Your task to perform on an android device: refresh tabs in the chrome app Image 0: 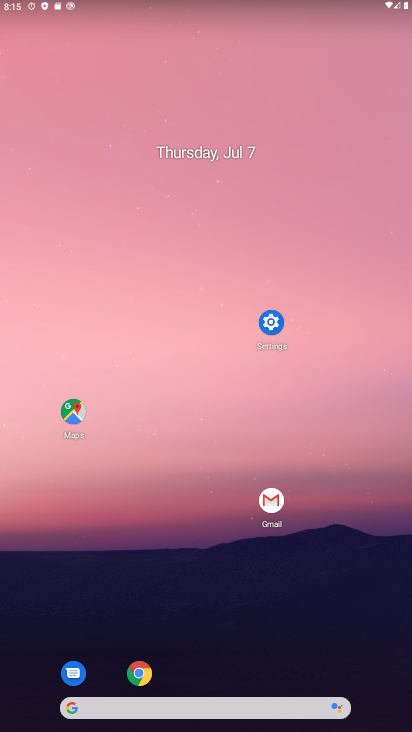
Step 0: click (138, 677)
Your task to perform on an android device: refresh tabs in the chrome app Image 1: 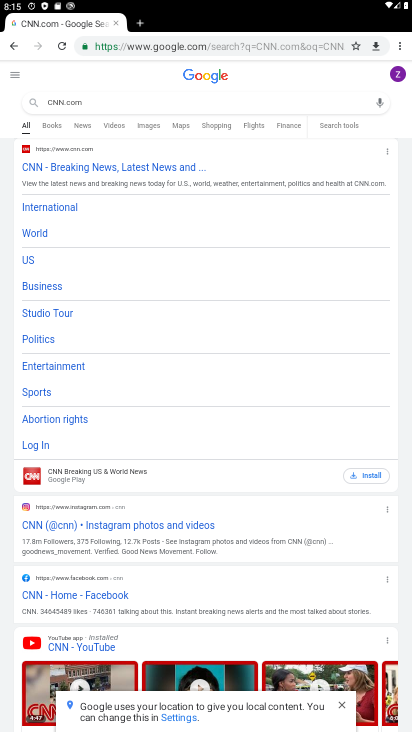
Step 1: click (401, 48)
Your task to perform on an android device: refresh tabs in the chrome app Image 2: 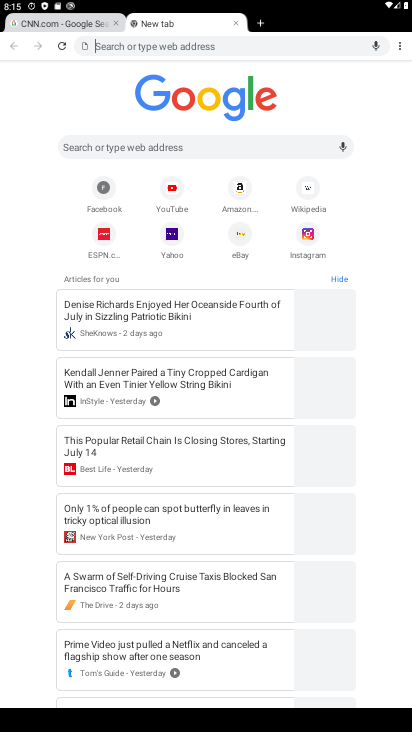
Step 2: click (401, 48)
Your task to perform on an android device: refresh tabs in the chrome app Image 3: 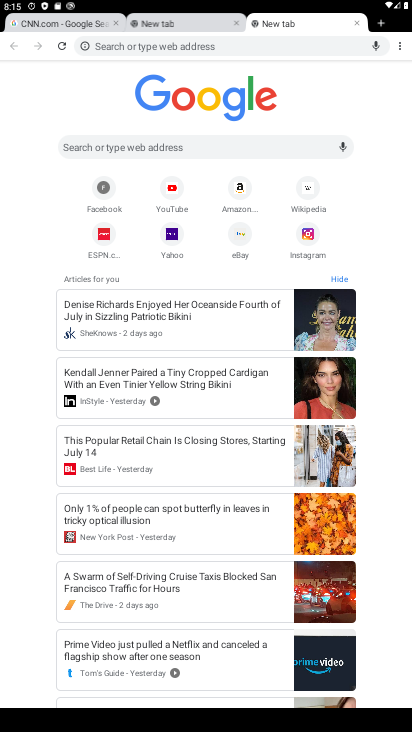
Step 3: click (397, 42)
Your task to perform on an android device: refresh tabs in the chrome app Image 4: 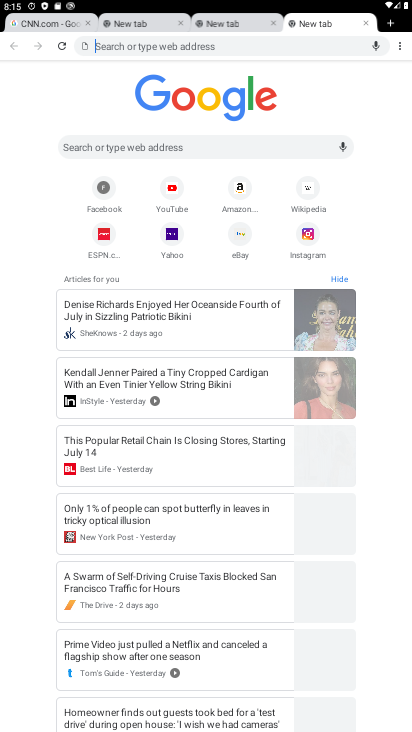
Step 4: click (397, 42)
Your task to perform on an android device: refresh tabs in the chrome app Image 5: 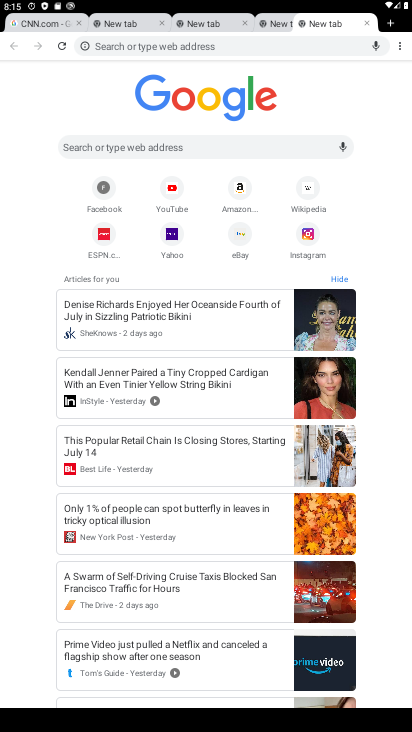
Step 5: click (395, 40)
Your task to perform on an android device: refresh tabs in the chrome app Image 6: 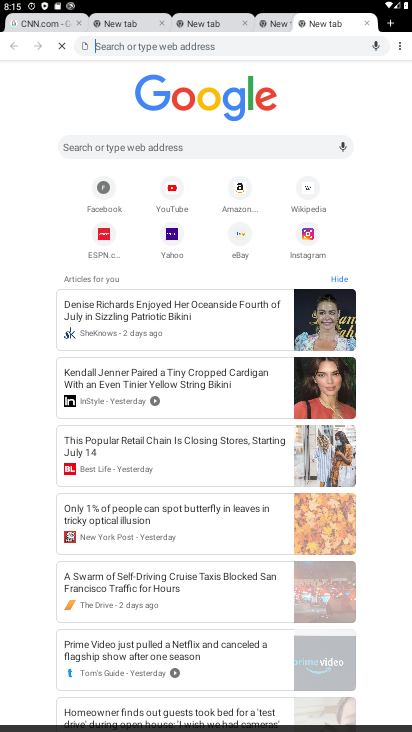
Step 6: click (395, 40)
Your task to perform on an android device: refresh tabs in the chrome app Image 7: 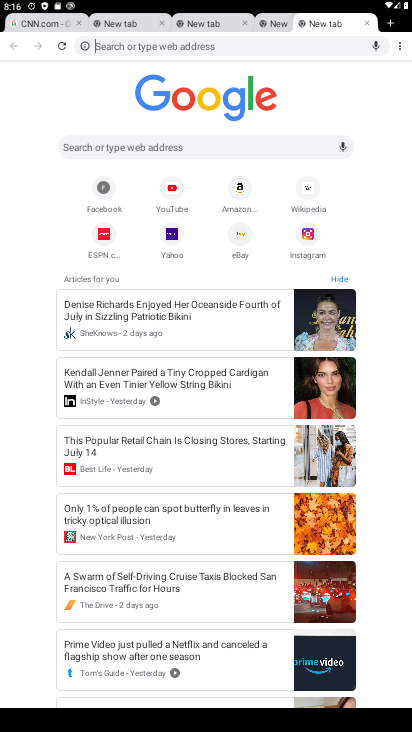
Step 7: click (400, 47)
Your task to perform on an android device: refresh tabs in the chrome app Image 8: 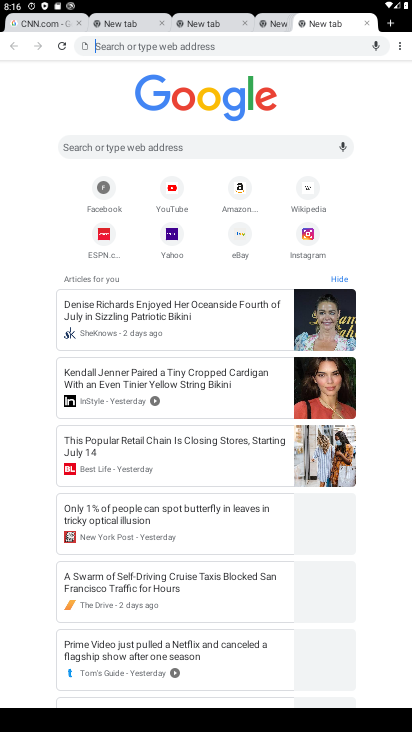
Step 8: click (400, 47)
Your task to perform on an android device: refresh tabs in the chrome app Image 9: 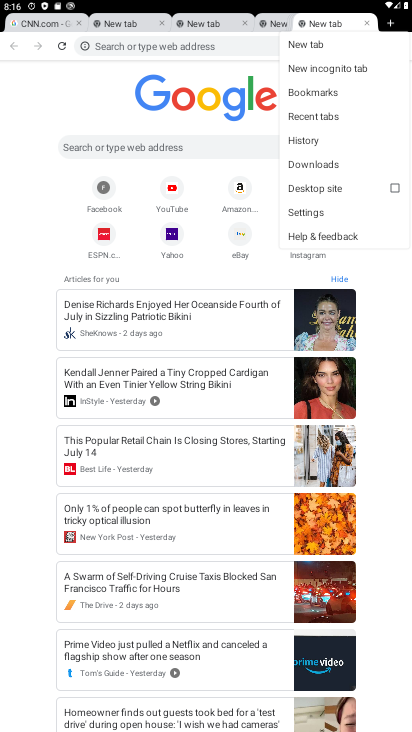
Step 9: click (391, 30)
Your task to perform on an android device: refresh tabs in the chrome app Image 10: 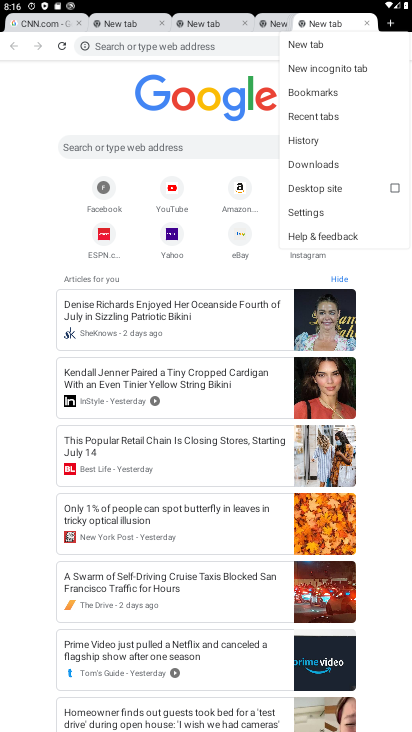
Step 10: press back button
Your task to perform on an android device: refresh tabs in the chrome app Image 11: 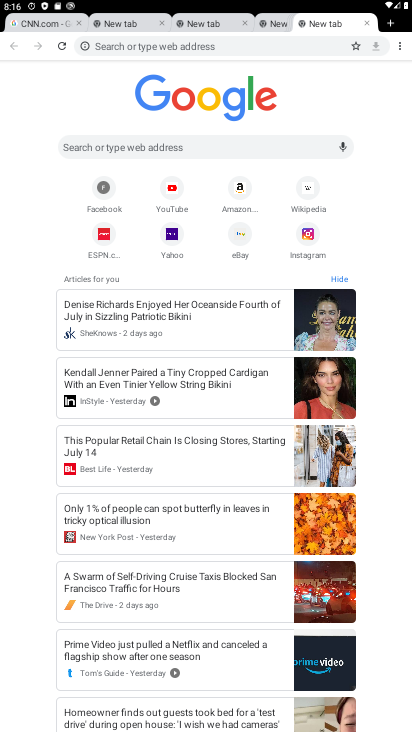
Step 11: click (399, 43)
Your task to perform on an android device: refresh tabs in the chrome app Image 12: 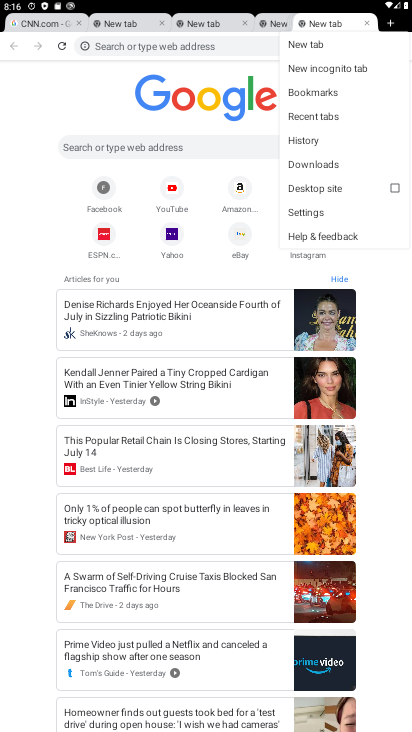
Step 12: click (399, 43)
Your task to perform on an android device: refresh tabs in the chrome app Image 13: 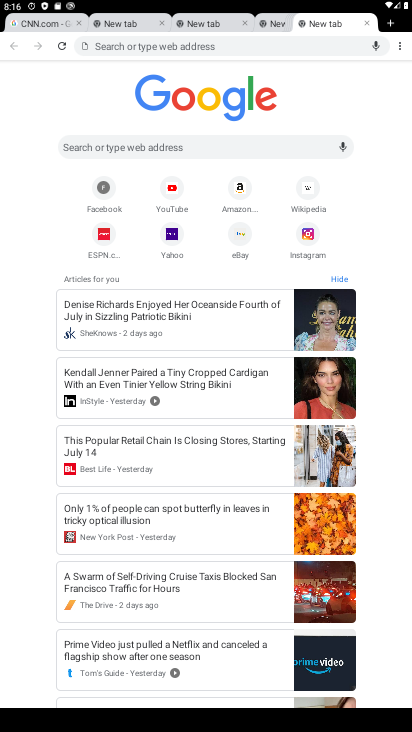
Step 13: task complete